Your task to perform on an android device: turn off location history Image 0: 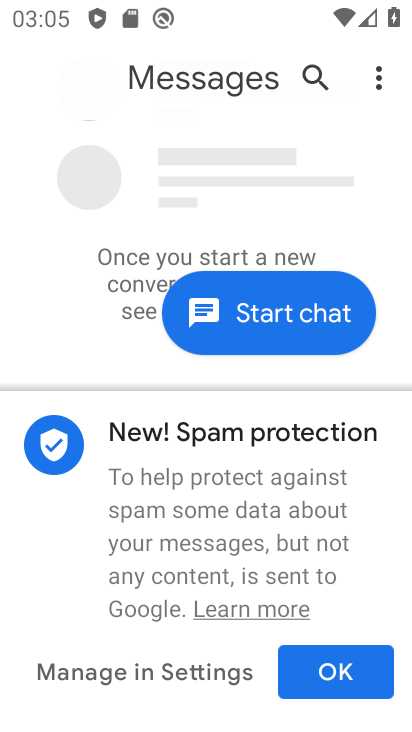
Step 0: press back button
Your task to perform on an android device: turn off location history Image 1: 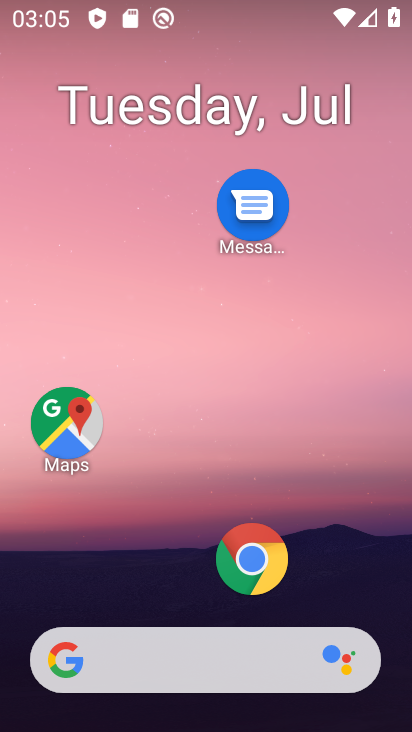
Step 1: drag from (85, 584) to (135, 102)
Your task to perform on an android device: turn off location history Image 2: 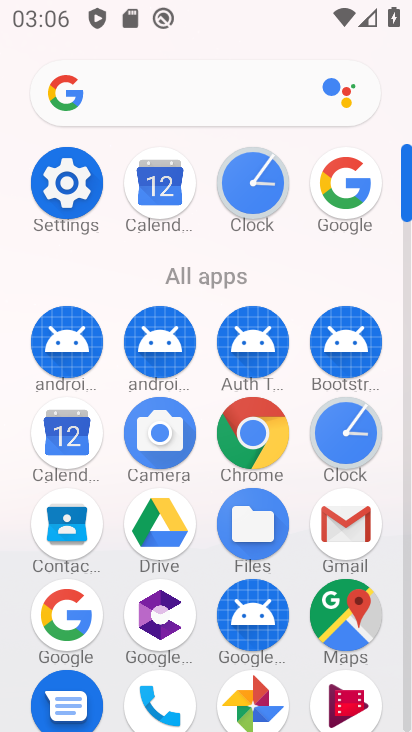
Step 2: click (66, 178)
Your task to perform on an android device: turn off location history Image 3: 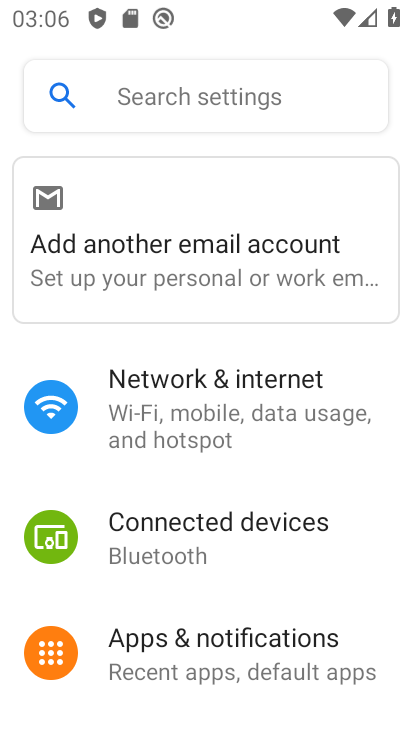
Step 3: drag from (192, 661) to (256, 188)
Your task to perform on an android device: turn off location history Image 4: 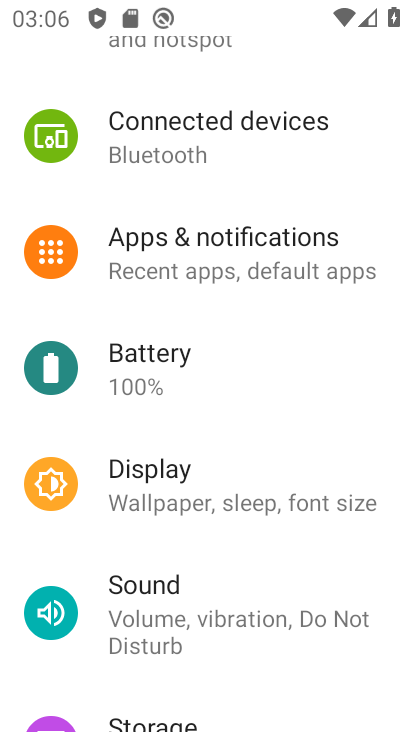
Step 4: drag from (185, 640) to (260, 166)
Your task to perform on an android device: turn off location history Image 5: 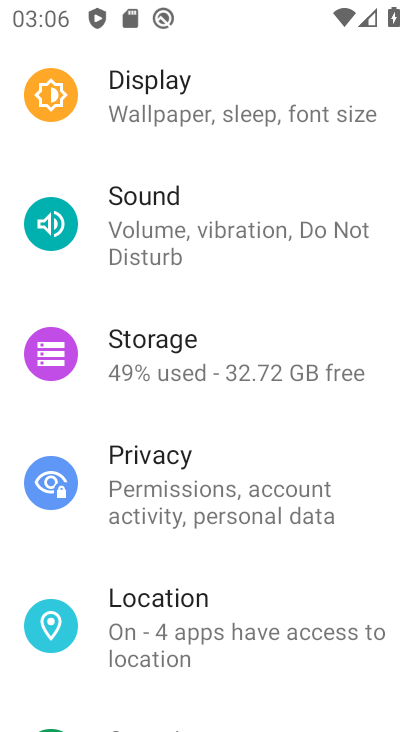
Step 5: click (143, 627)
Your task to perform on an android device: turn off location history Image 6: 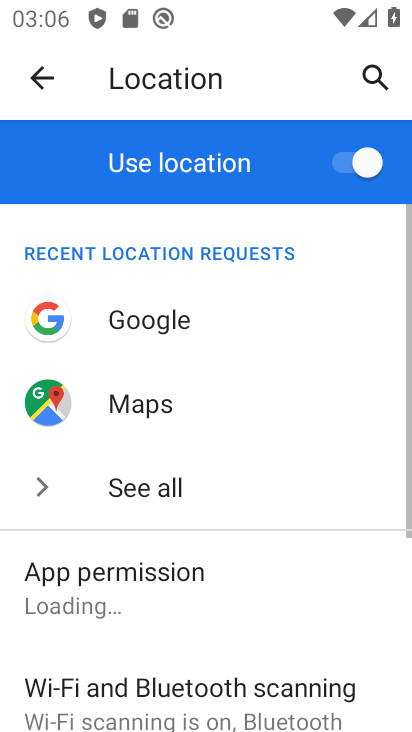
Step 6: drag from (148, 671) to (218, 130)
Your task to perform on an android device: turn off location history Image 7: 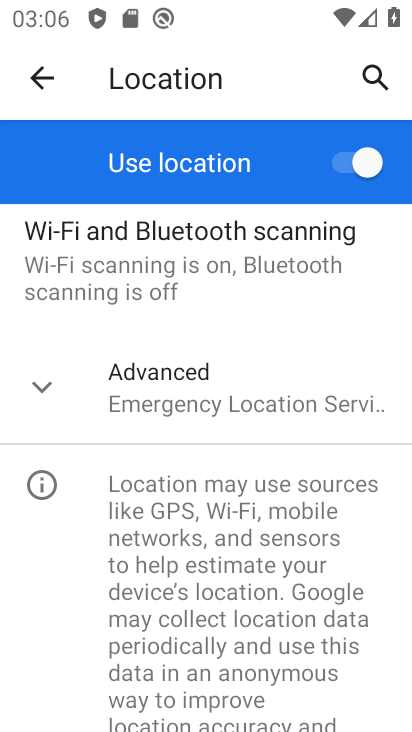
Step 7: click (198, 393)
Your task to perform on an android device: turn off location history Image 8: 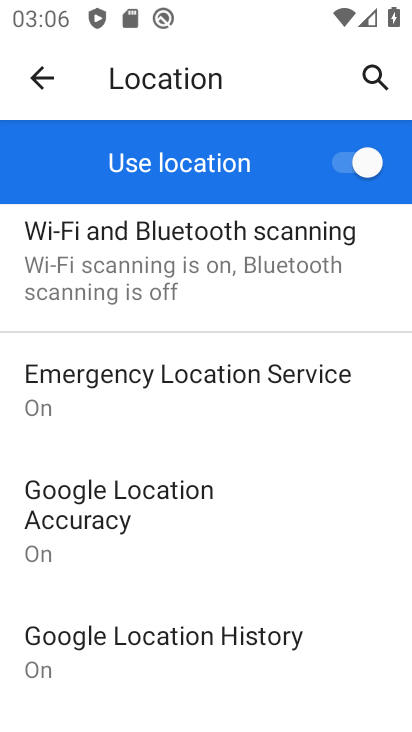
Step 8: click (151, 638)
Your task to perform on an android device: turn off location history Image 9: 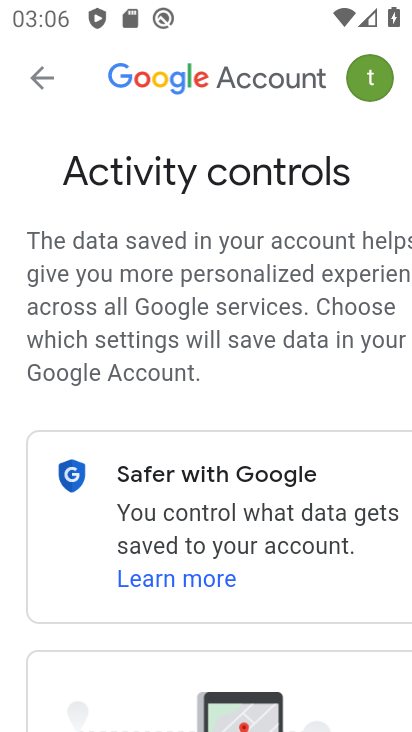
Step 9: drag from (198, 678) to (309, 43)
Your task to perform on an android device: turn off location history Image 10: 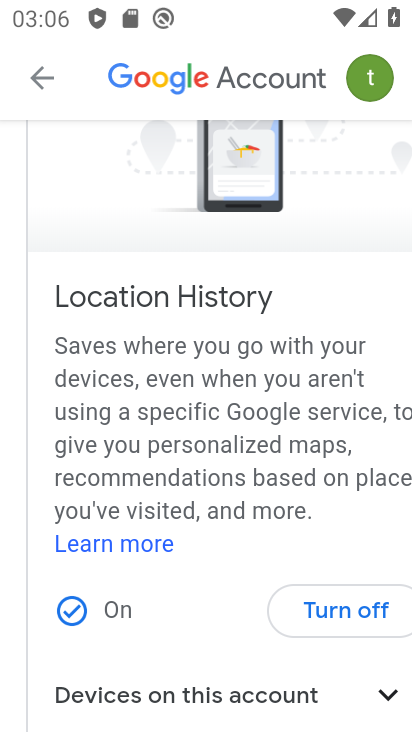
Step 10: click (331, 619)
Your task to perform on an android device: turn off location history Image 11: 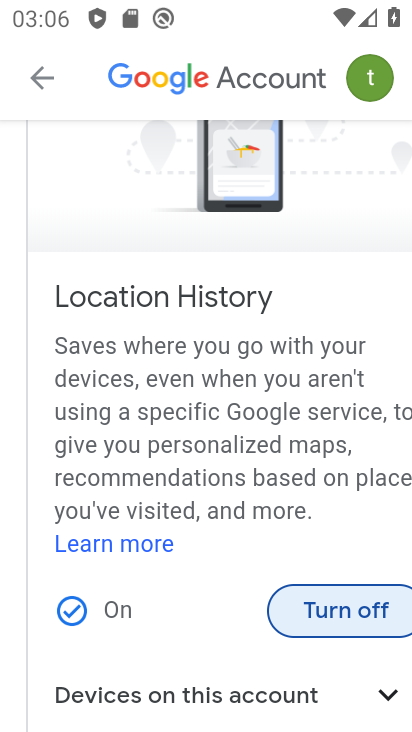
Step 11: click (339, 608)
Your task to perform on an android device: turn off location history Image 12: 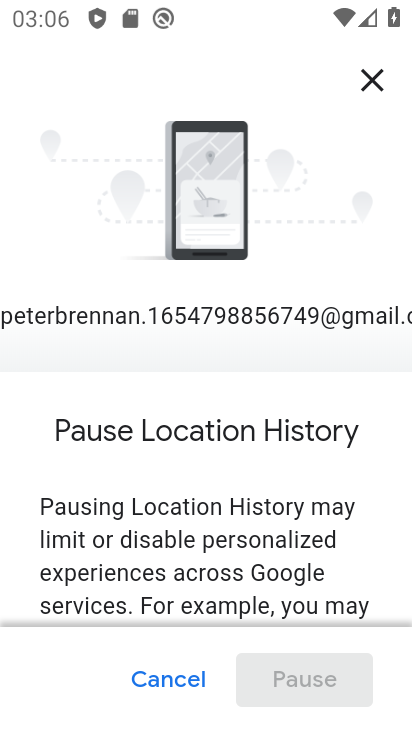
Step 12: drag from (257, 581) to (300, 30)
Your task to perform on an android device: turn off location history Image 13: 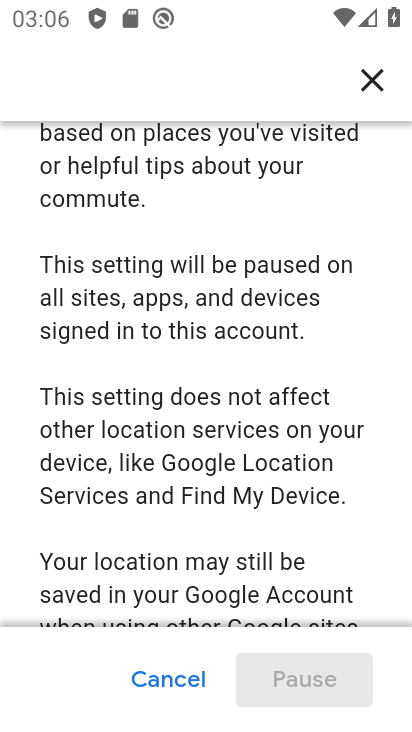
Step 13: drag from (168, 559) to (263, 78)
Your task to perform on an android device: turn off location history Image 14: 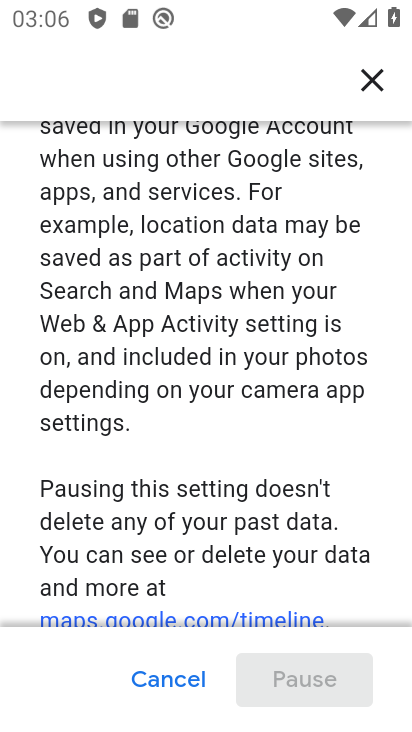
Step 14: drag from (201, 604) to (318, 6)
Your task to perform on an android device: turn off location history Image 15: 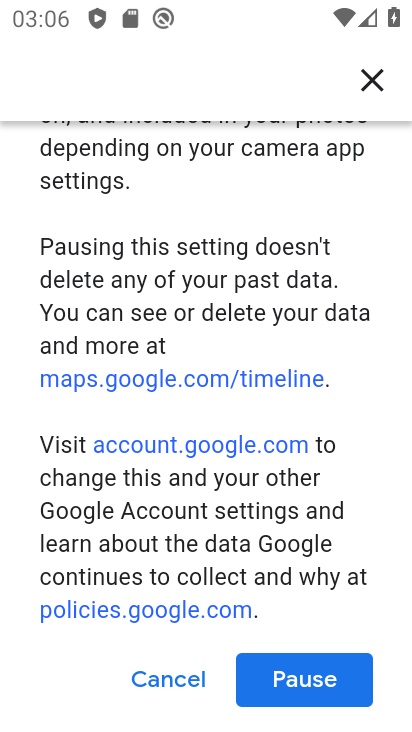
Step 15: click (304, 669)
Your task to perform on an android device: turn off location history Image 16: 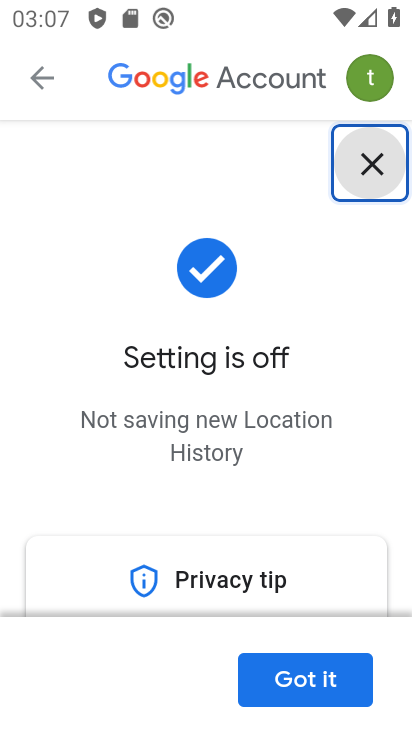
Step 16: task complete